Your task to perform on an android device: turn on bluetooth scan Image 0: 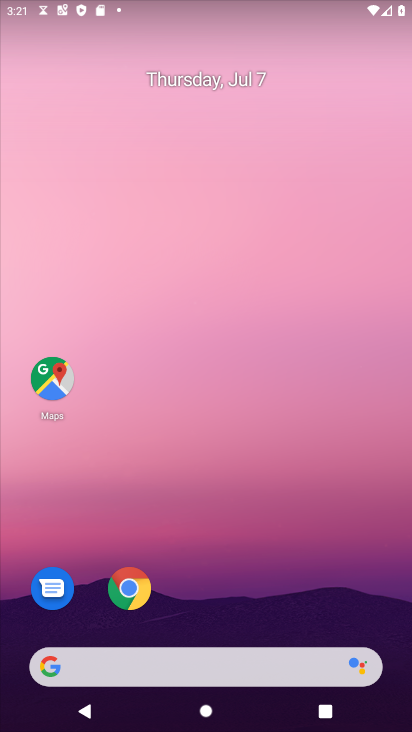
Step 0: drag from (258, 617) to (270, 77)
Your task to perform on an android device: turn on bluetooth scan Image 1: 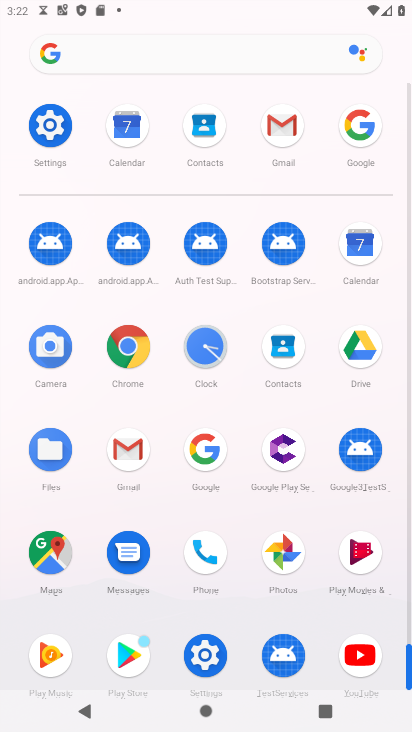
Step 1: click (50, 126)
Your task to perform on an android device: turn on bluetooth scan Image 2: 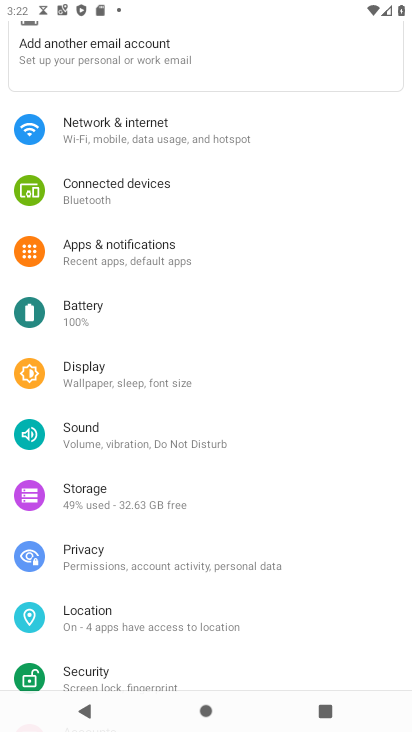
Step 2: click (98, 618)
Your task to perform on an android device: turn on bluetooth scan Image 3: 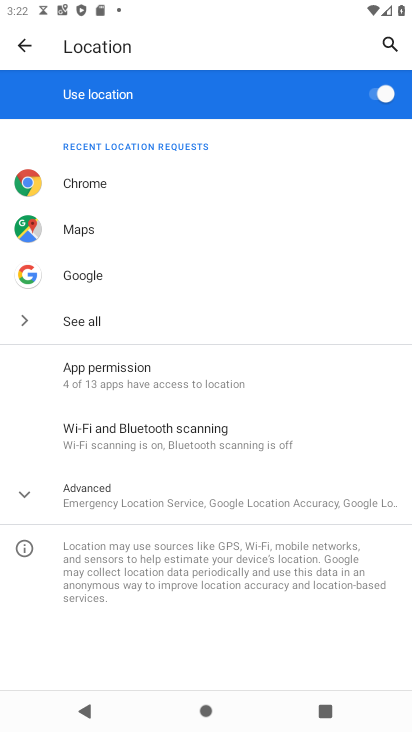
Step 3: click (142, 437)
Your task to perform on an android device: turn on bluetooth scan Image 4: 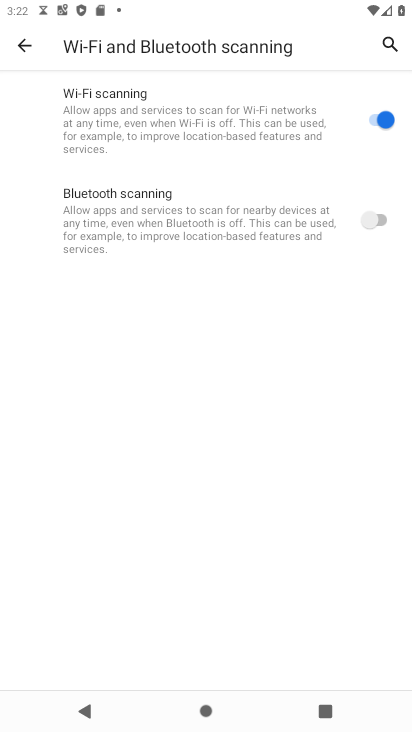
Step 4: click (370, 220)
Your task to perform on an android device: turn on bluetooth scan Image 5: 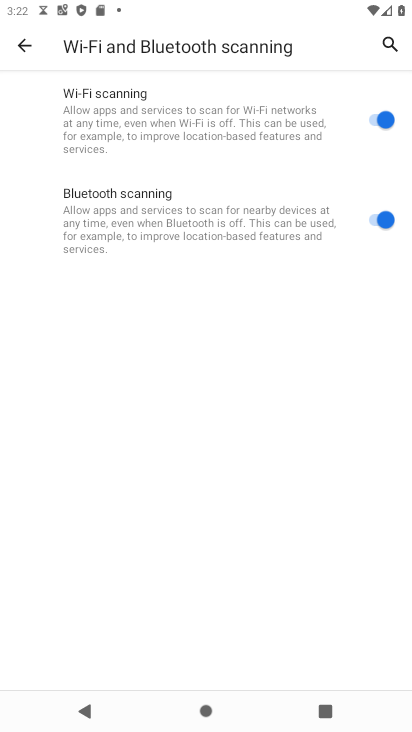
Step 5: task complete